Your task to perform on an android device: What's on my calendar today? Image 0: 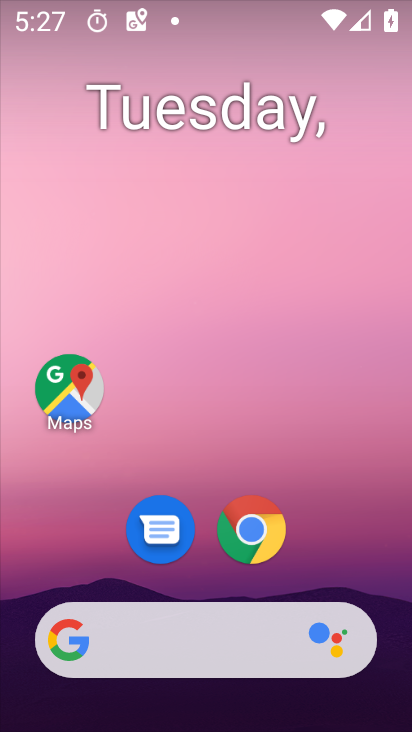
Step 0: drag from (343, 239) to (336, 118)
Your task to perform on an android device: What's on my calendar today? Image 1: 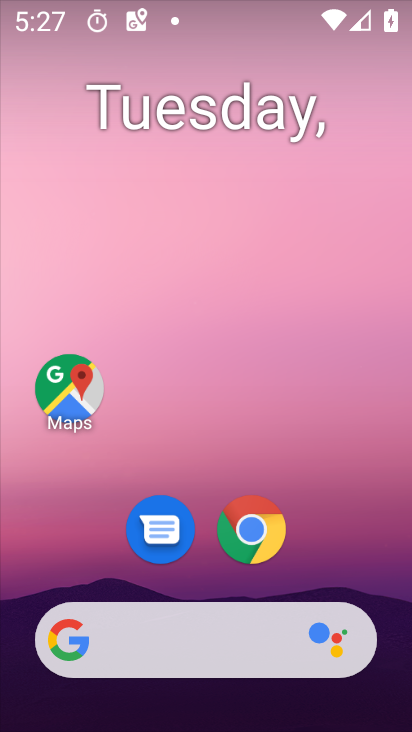
Step 1: drag from (377, 575) to (332, 140)
Your task to perform on an android device: What's on my calendar today? Image 2: 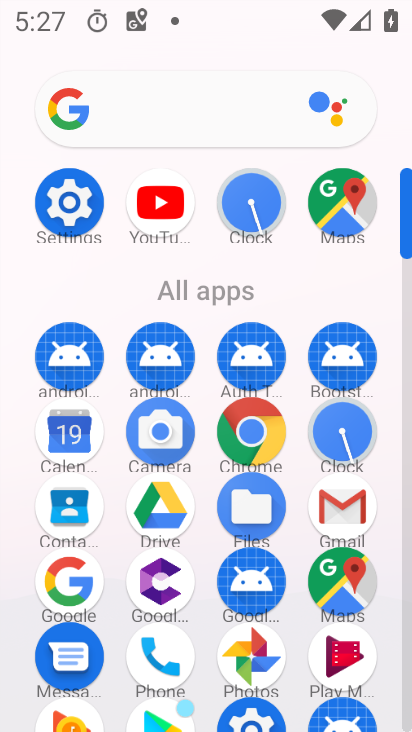
Step 2: click (66, 444)
Your task to perform on an android device: What's on my calendar today? Image 3: 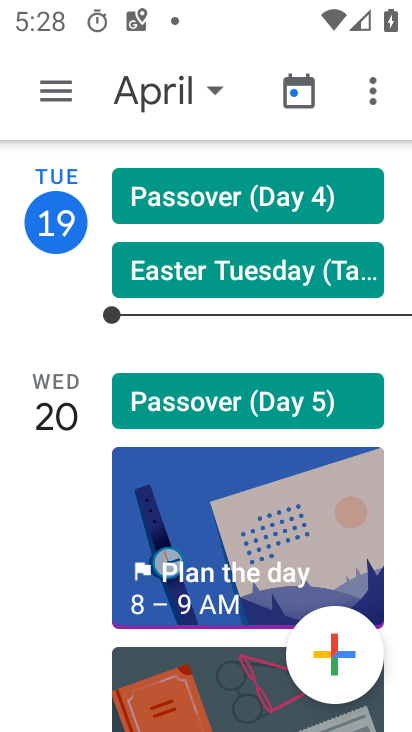
Step 3: click (204, 82)
Your task to perform on an android device: What's on my calendar today? Image 4: 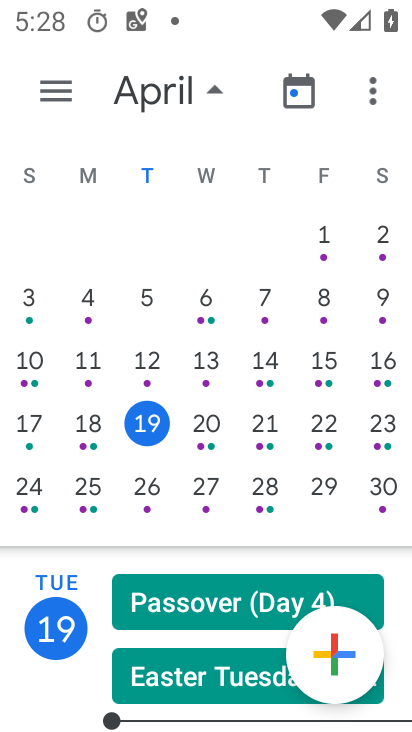
Step 4: click (141, 427)
Your task to perform on an android device: What's on my calendar today? Image 5: 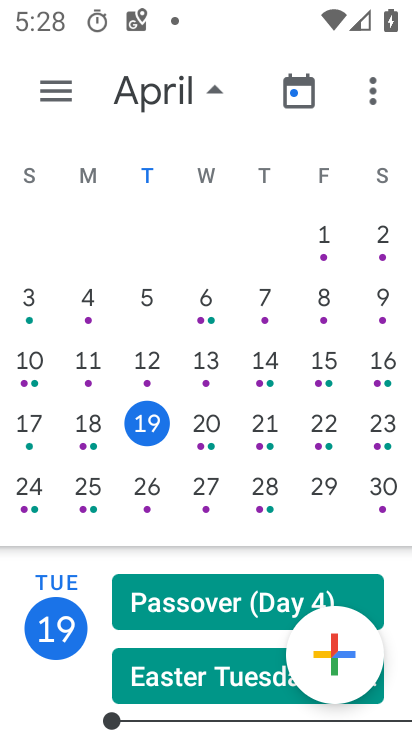
Step 5: task complete